Your task to perform on an android device: empty trash in the gmail app Image 0: 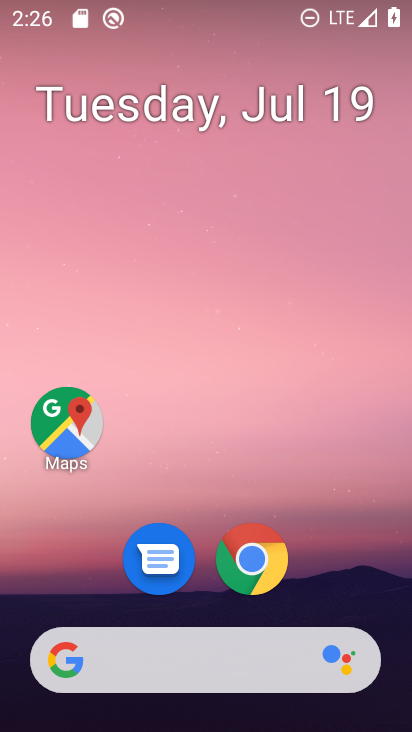
Step 0: drag from (216, 491) to (189, 150)
Your task to perform on an android device: empty trash in the gmail app Image 1: 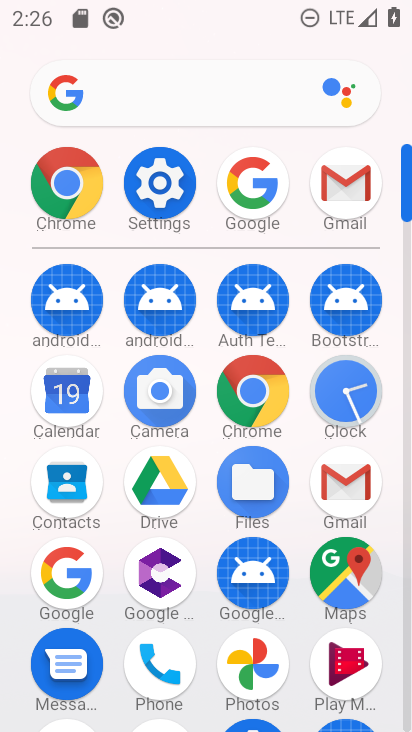
Step 1: click (366, 495)
Your task to perform on an android device: empty trash in the gmail app Image 2: 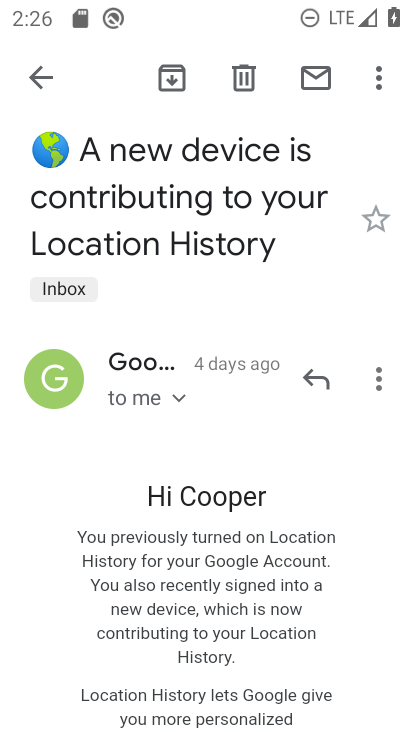
Step 2: click (40, 75)
Your task to perform on an android device: empty trash in the gmail app Image 3: 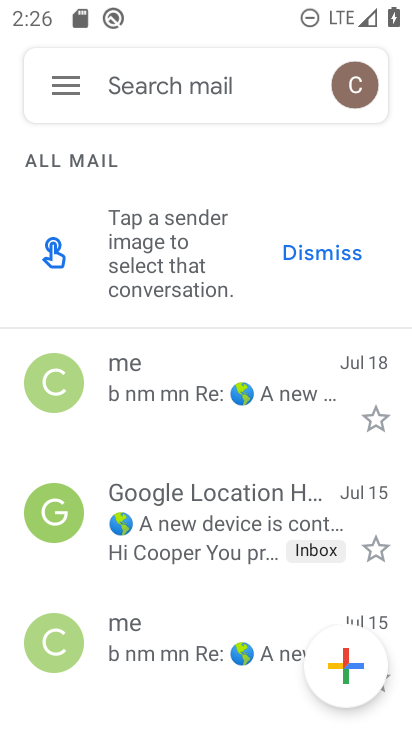
Step 3: click (65, 70)
Your task to perform on an android device: empty trash in the gmail app Image 4: 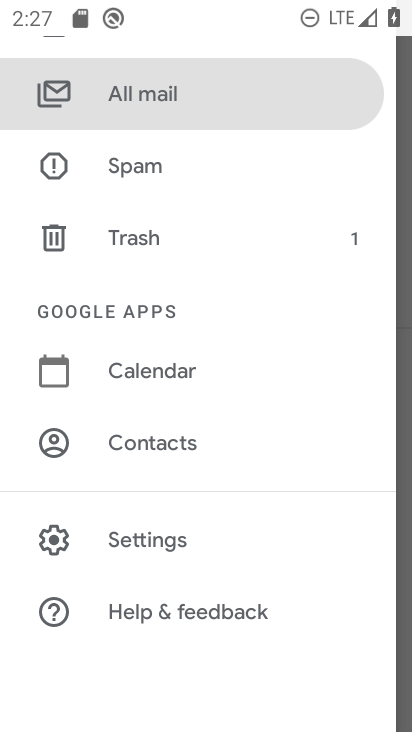
Step 4: click (119, 236)
Your task to perform on an android device: empty trash in the gmail app Image 5: 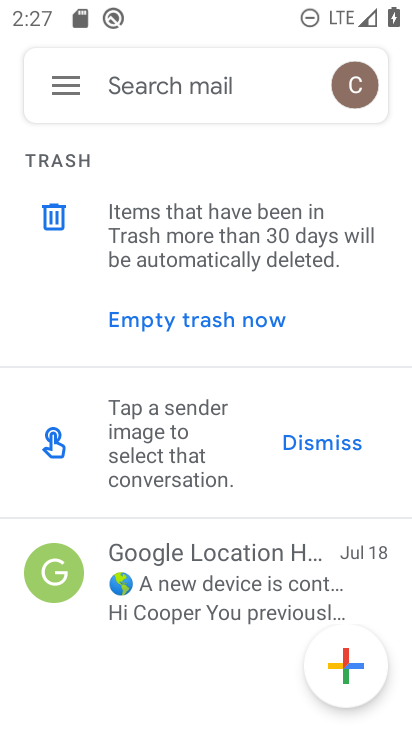
Step 5: click (245, 314)
Your task to perform on an android device: empty trash in the gmail app Image 6: 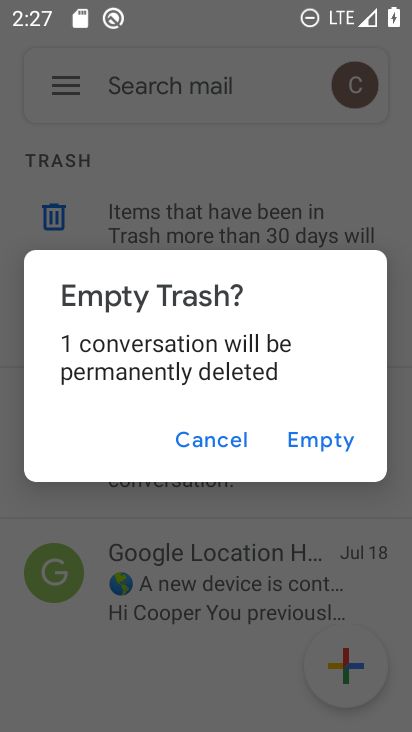
Step 6: click (314, 456)
Your task to perform on an android device: empty trash in the gmail app Image 7: 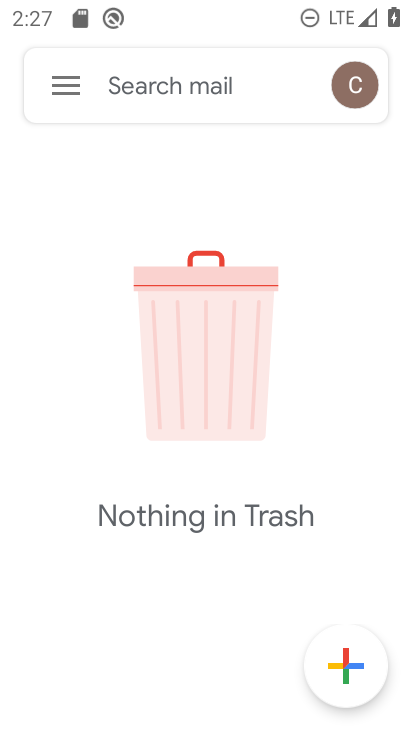
Step 7: task complete